Your task to perform on an android device: install app "Upside-Cash back on gas & food" Image 0: 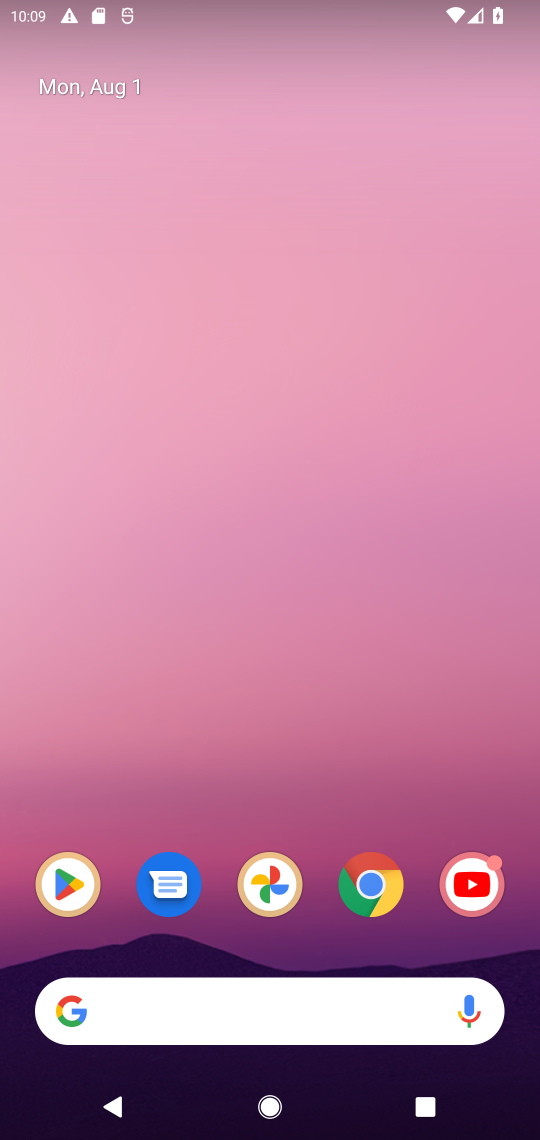
Step 0: click (60, 877)
Your task to perform on an android device: install app "Upside-Cash back on gas & food" Image 1: 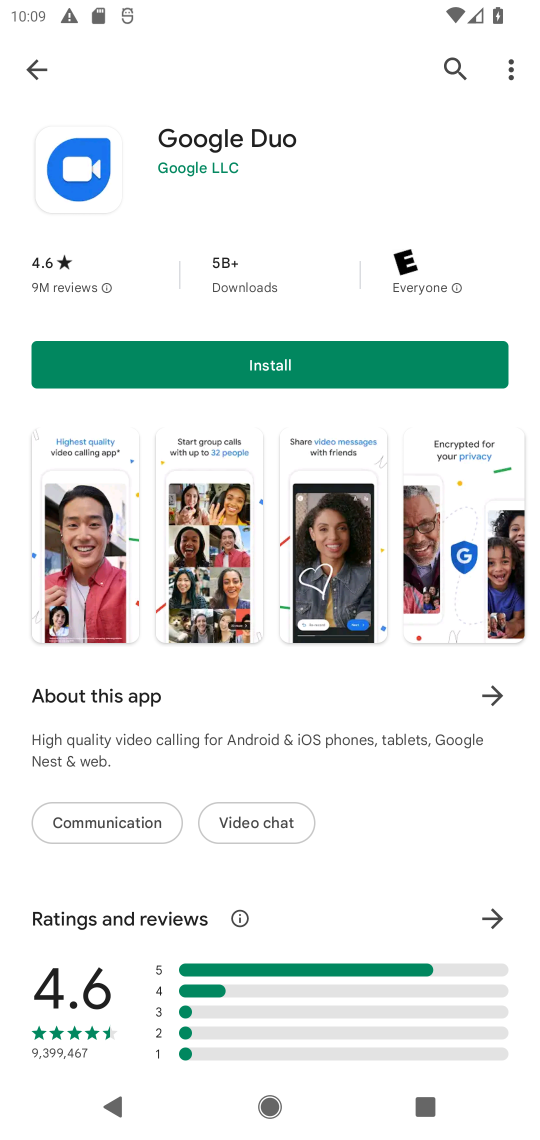
Step 1: click (453, 73)
Your task to perform on an android device: install app "Upside-Cash back on gas & food" Image 2: 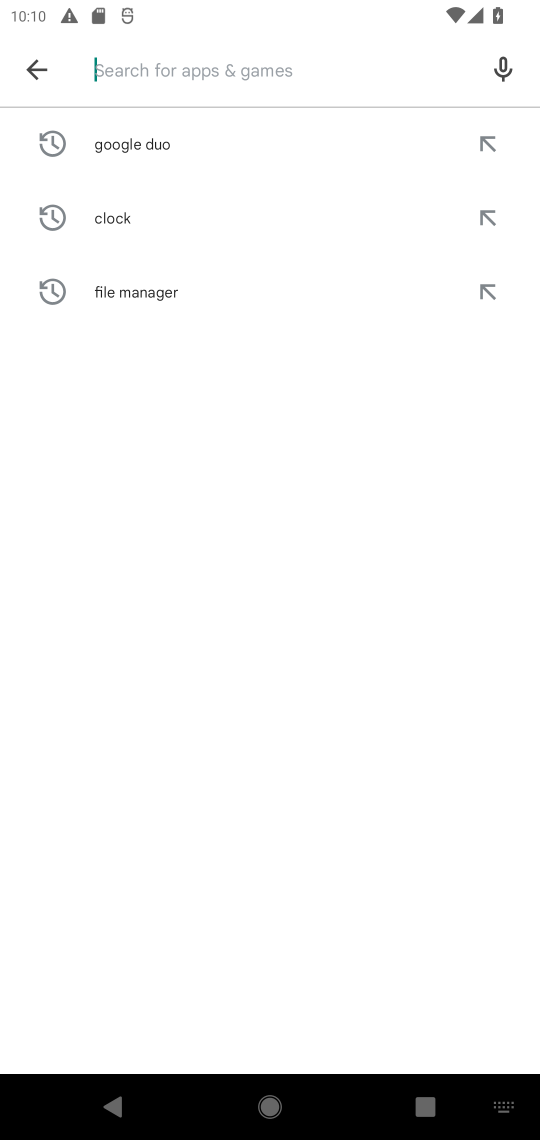
Step 2: type "upside-cash back on gas & food"
Your task to perform on an android device: install app "Upside-Cash back on gas & food" Image 3: 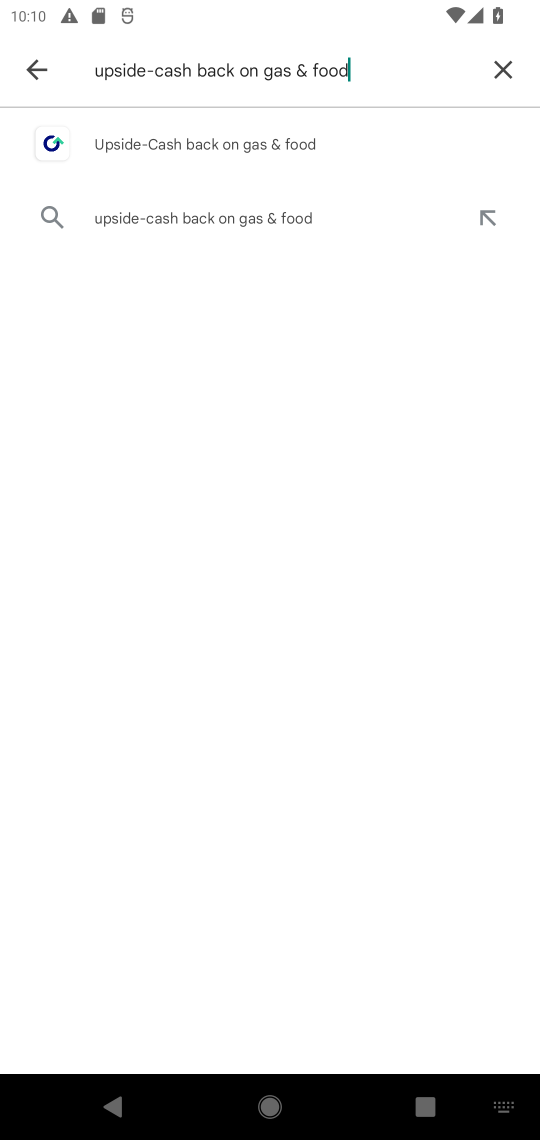
Step 3: click (265, 132)
Your task to perform on an android device: install app "Upside-Cash back on gas & food" Image 4: 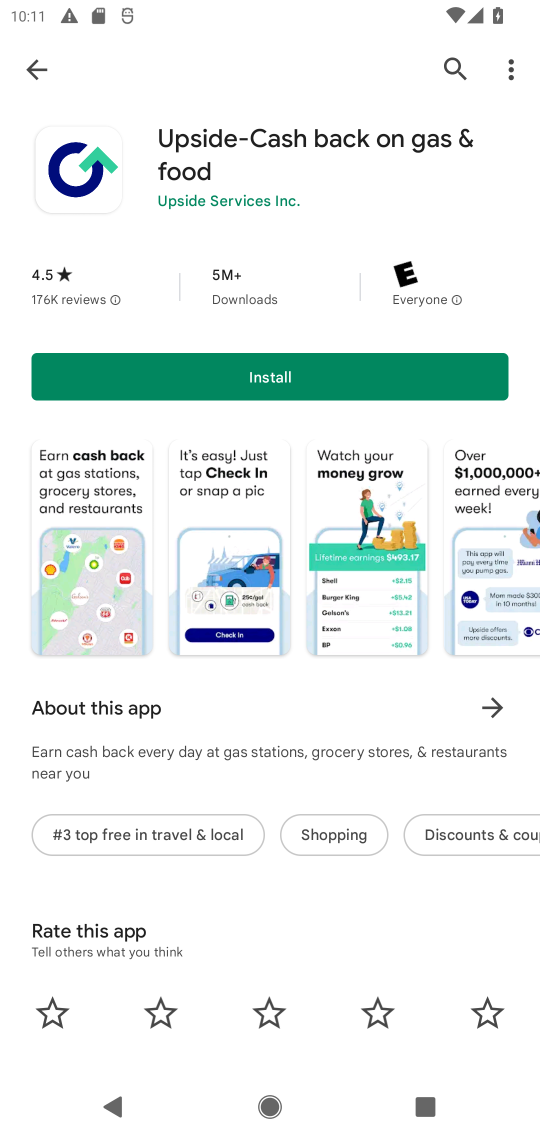
Step 4: click (283, 367)
Your task to perform on an android device: install app "Upside-Cash back on gas & food" Image 5: 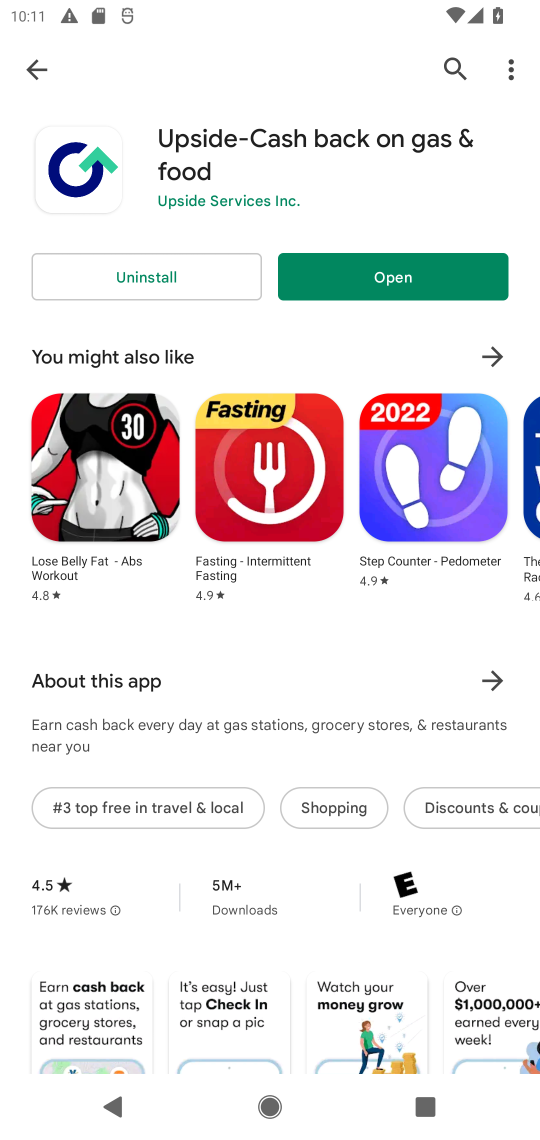
Step 5: task complete